Your task to perform on an android device: toggle improve location accuracy Image 0: 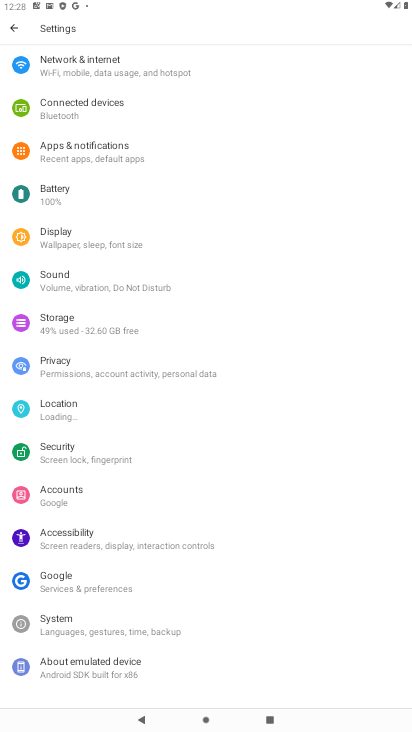
Step 0: press home button
Your task to perform on an android device: toggle improve location accuracy Image 1: 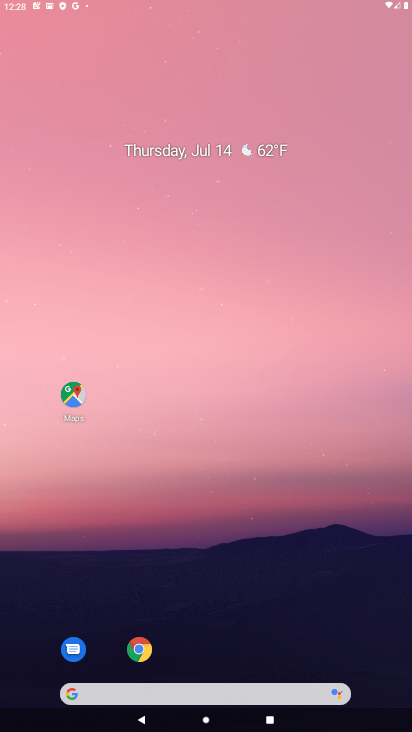
Step 1: drag from (402, 698) to (327, 90)
Your task to perform on an android device: toggle improve location accuracy Image 2: 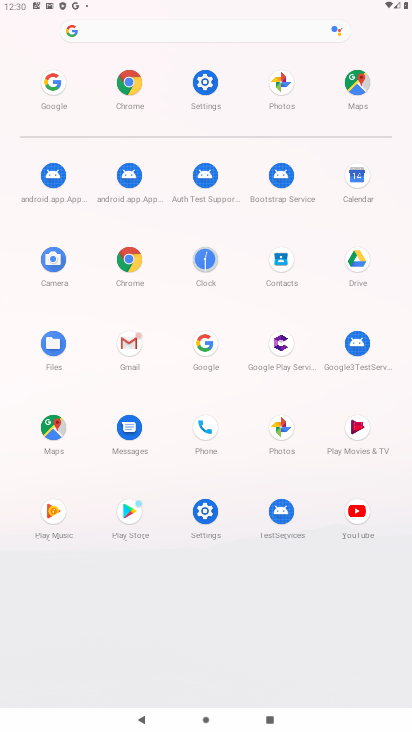
Step 2: click (216, 518)
Your task to perform on an android device: toggle improve location accuracy Image 3: 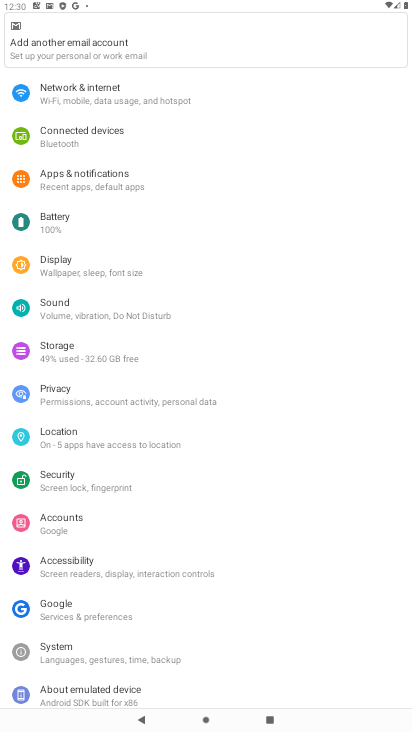
Step 3: click (104, 434)
Your task to perform on an android device: toggle improve location accuracy Image 4: 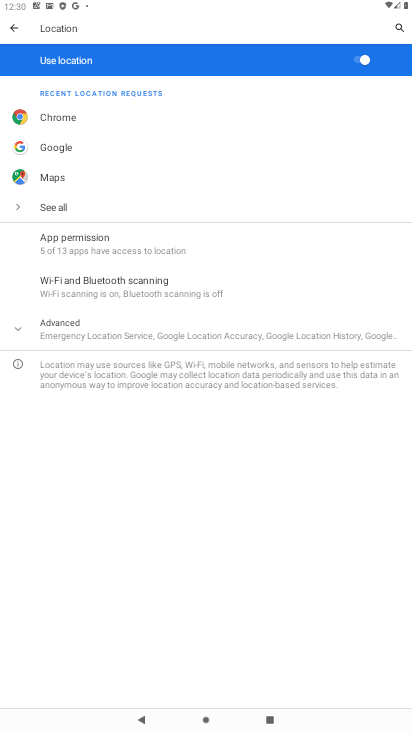
Step 4: click (93, 318)
Your task to perform on an android device: toggle improve location accuracy Image 5: 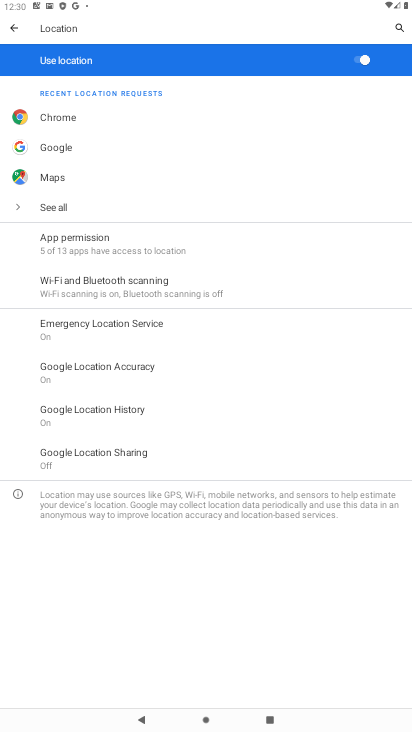
Step 5: click (137, 370)
Your task to perform on an android device: toggle improve location accuracy Image 6: 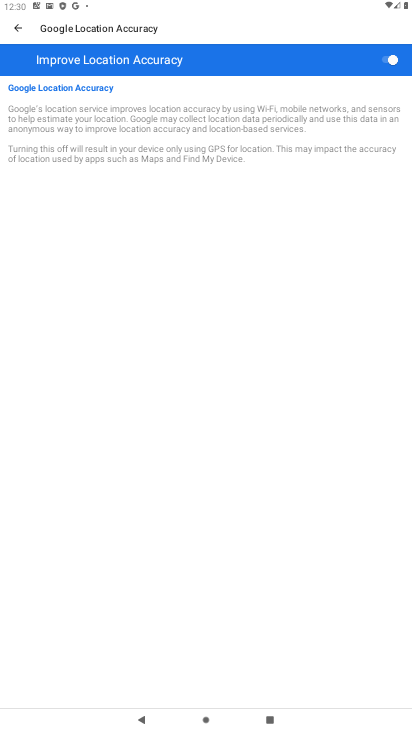
Step 6: click (386, 60)
Your task to perform on an android device: toggle improve location accuracy Image 7: 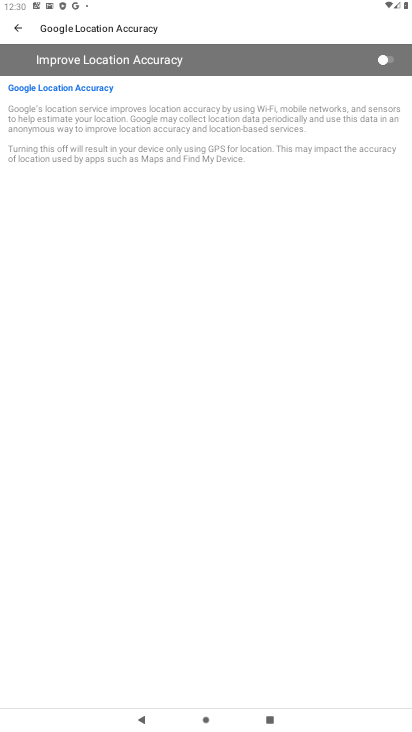
Step 7: task complete